Your task to perform on an android device: Go to Google Image 0: 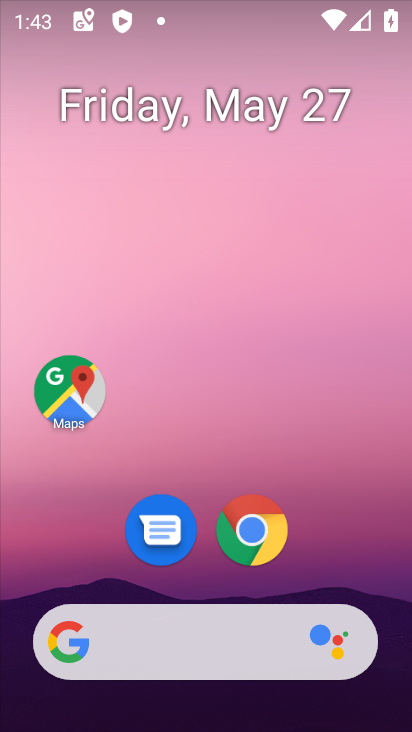
Step 0: drag from (144, 701) to (185, 46)
Your task to perform on an android device: Go to Google Image 1: 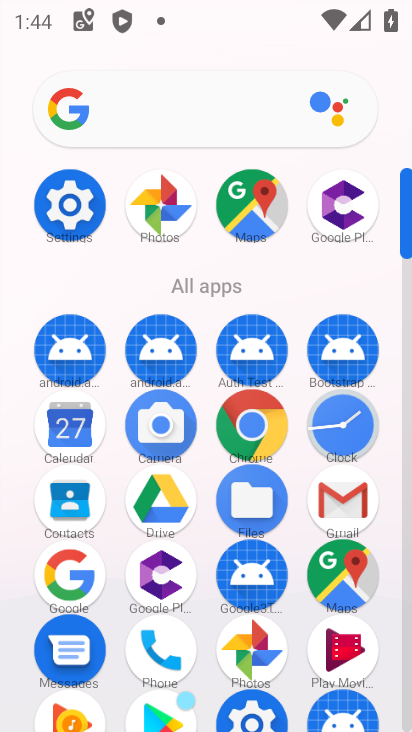
Step 1: click (50, 583)
Your task to perform on an android device: Go to Google Image 2: 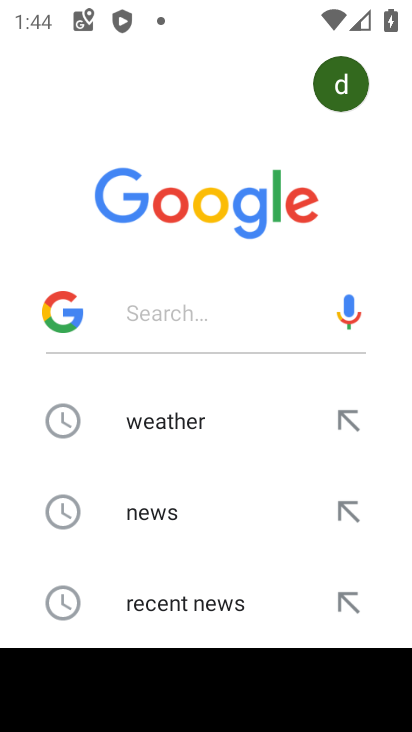
Step 2: task complete